Your task to perform on an android device: change the clock display to analog Image 0: 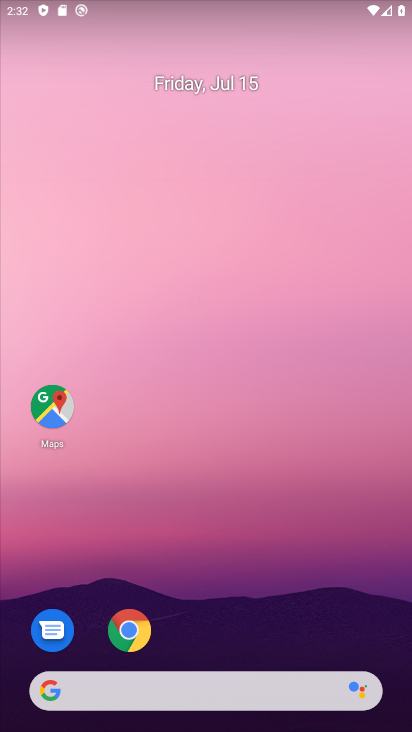
Step 0: drag from (280, 629) to (280, 193)
Your task to perform on an android device: change the clock display to analog Image 1: 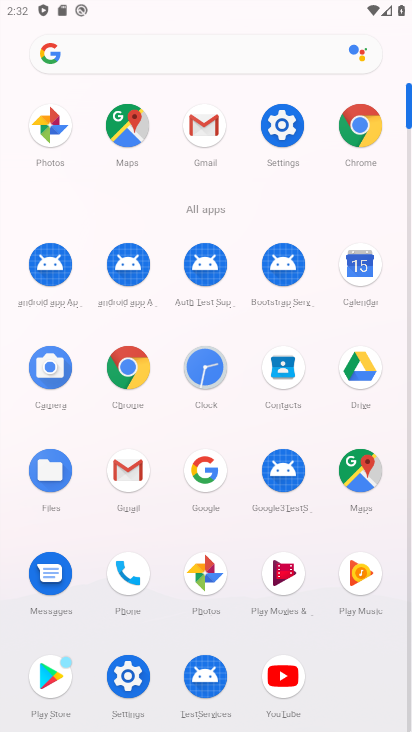
Step 1: click (206, 361)
Your task to perform on an android device: change the clock display to analog Image 2: 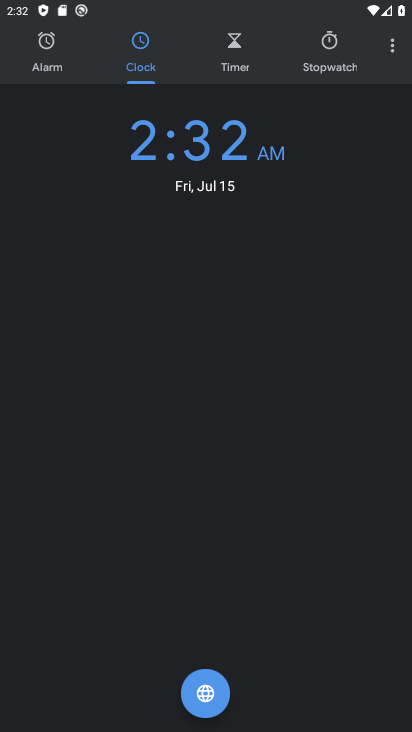
Step 2: click (388, 46)
Your task to perform on an android device: change the clock display to analog Image 3: 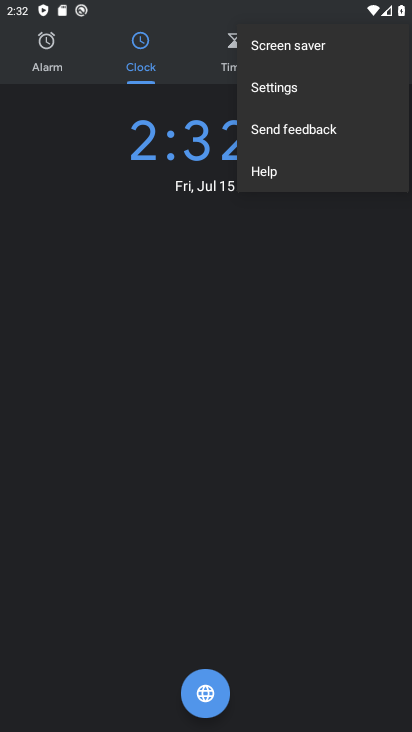
Step 3: click (306, 90)
Your task to perform on an android device: change the clock display to analog Image 4: 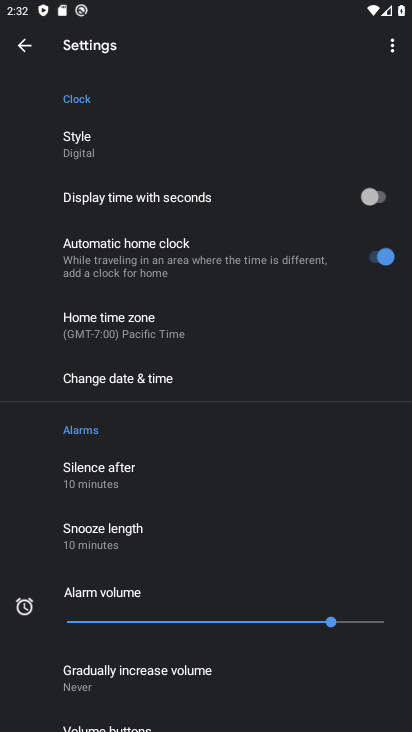
Step 4: click (127, 152)
Your task to perform on an android device: change the clock display to analog Image 5: 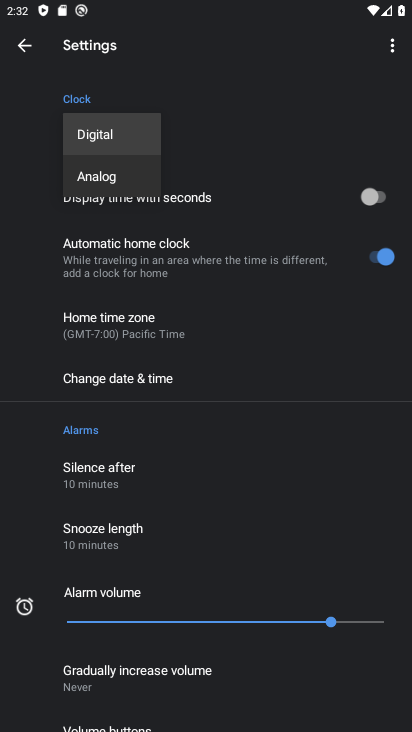
Step 5: click (127, 167)
Your task to perform on an android device: change the clock display to analog Image 6: 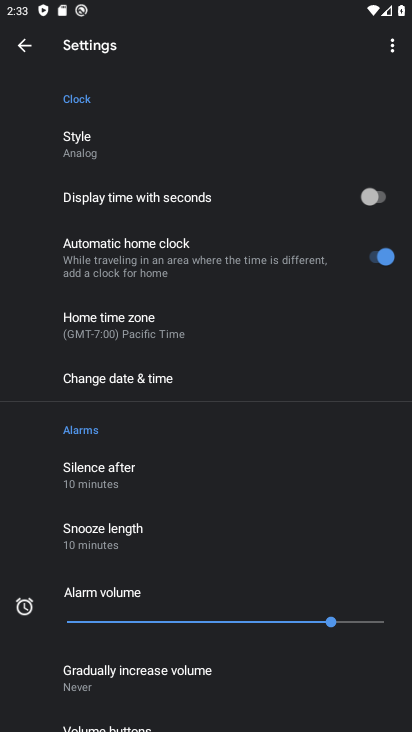
Step 6: task complete